Your task to perform on an android device: add a contact Image 0: 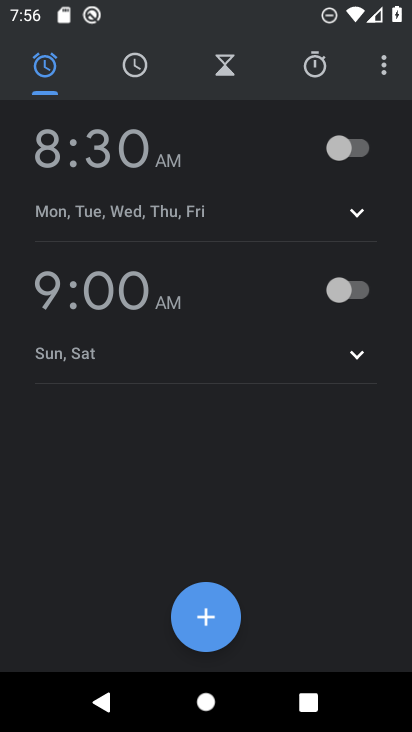
Step 0: press home button
Your task to perform on an android device: add a contact Image 1: 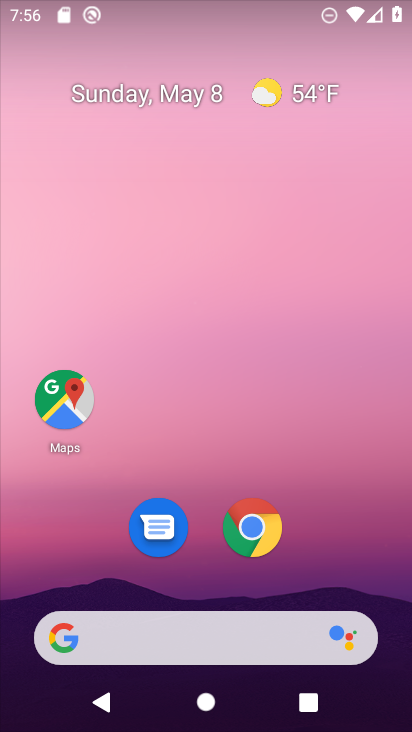
Step 1: drag from (321, 502) to (270, 88)
Your task to perform on an android device: add a contact Image 2: 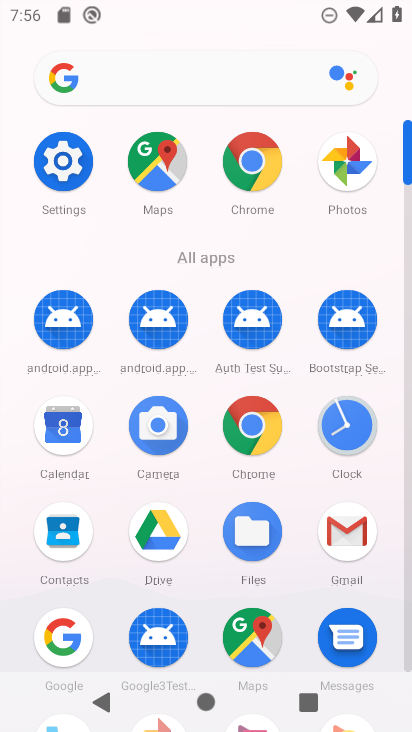
Step 2: click (67, 531)
Your task to perform on an android device: add a contact Image 3: 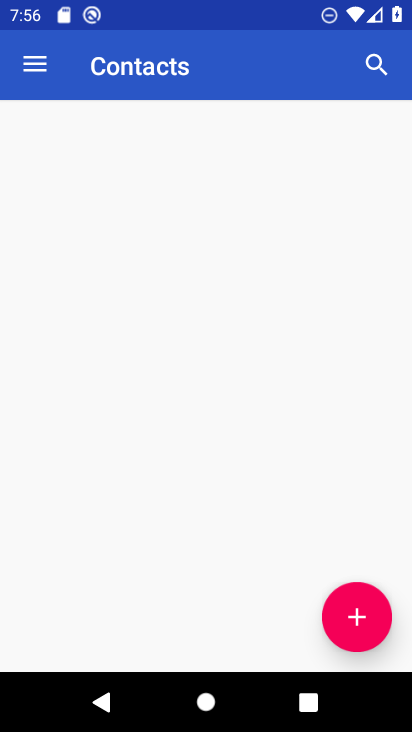
Step 3: click (354, 616)
Your task to perform on an android device: add a contact Image 4: 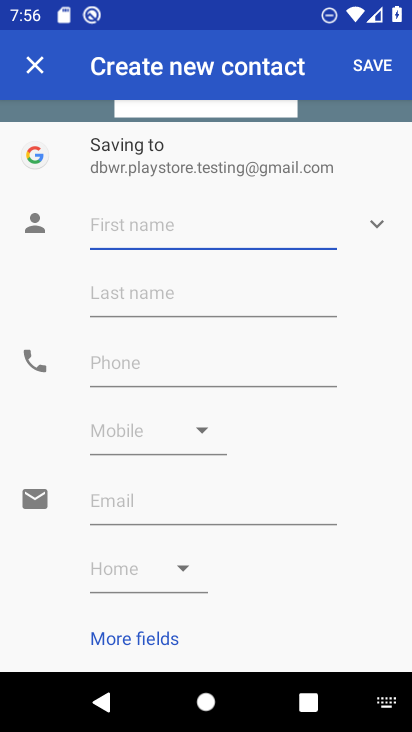
Step 4: click (192, 229)
Your task to perform on an android device: add a contact Image 5: 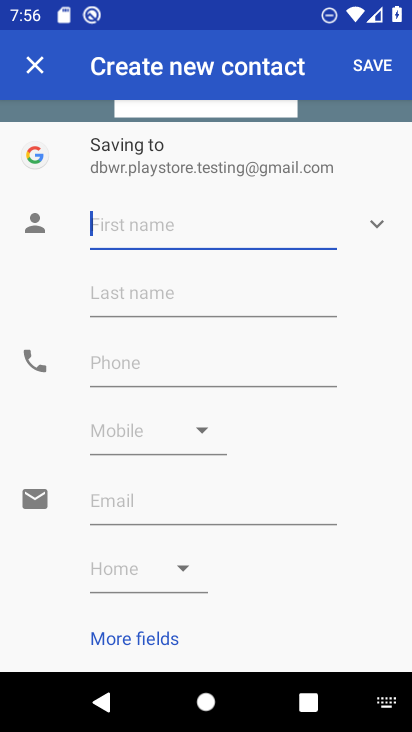
Step 5: type "kaho na pyar hai "
Your task to perform on an android device: add a contact Image 6: 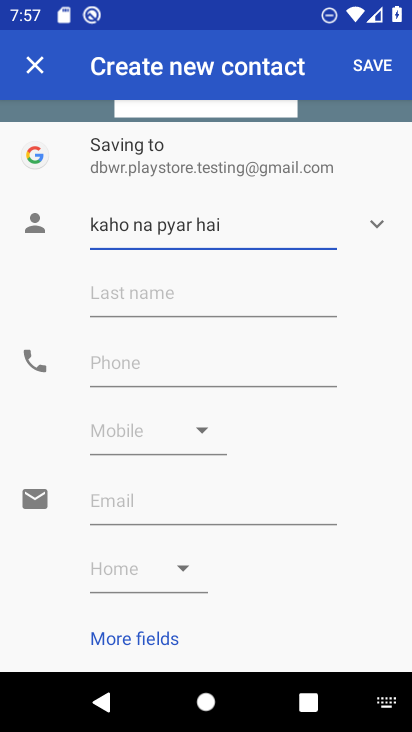
Step 6: click (377, 69)
Your task to perform on an android device: add a contact Image 7: 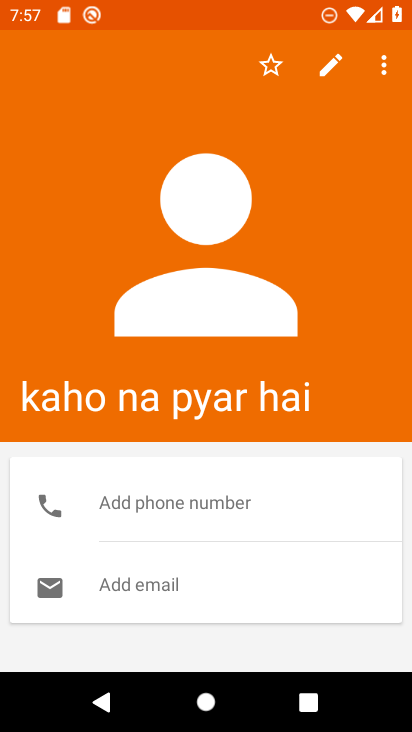
Step 7: task complete